Your task to perform on an android device: What's the weather going to be this weekend? Image 0: 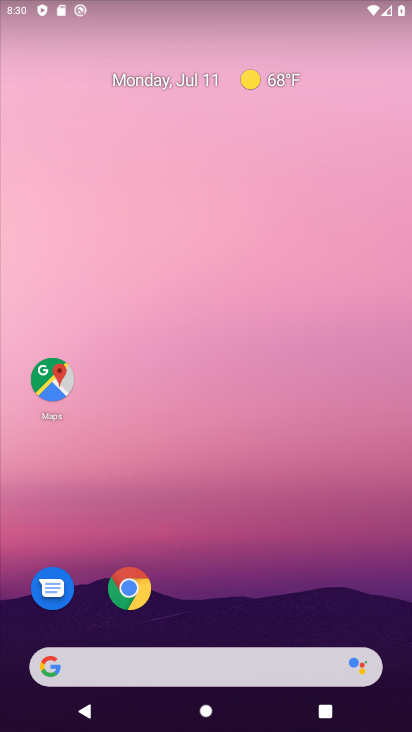
Step 0: click (249, 666)
Your task to perform on an android device: What's the weather going to be this weekend? Image 1: 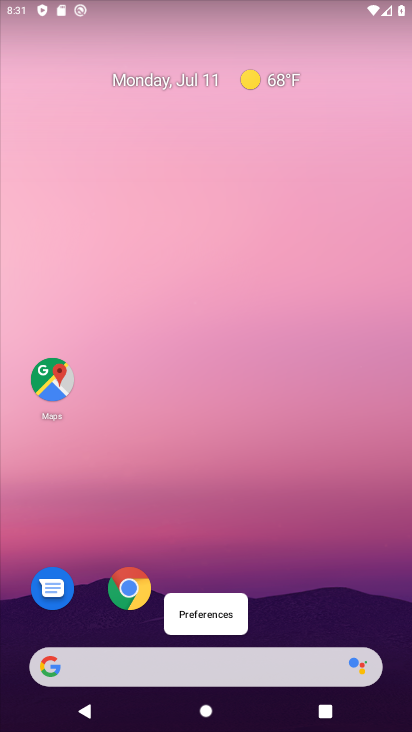
Step 1: click (210, 659)
Your task to perform on an android device: What's the weather going to be this weekend? Image 2: 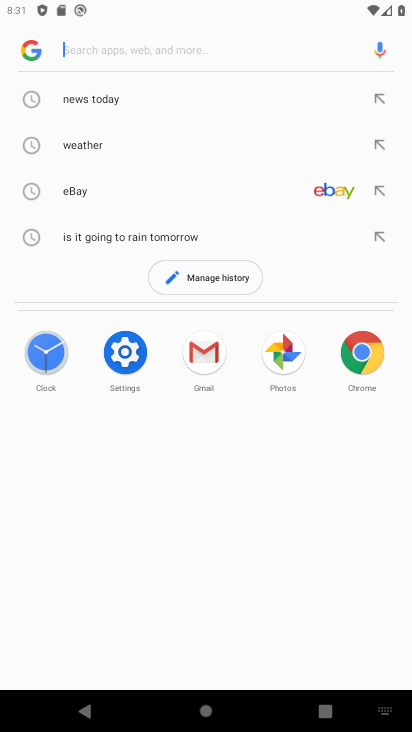
Step 2: click (85, 149)
Your task to perform on an android device: What's the weather going to be this weekend? Image 3: 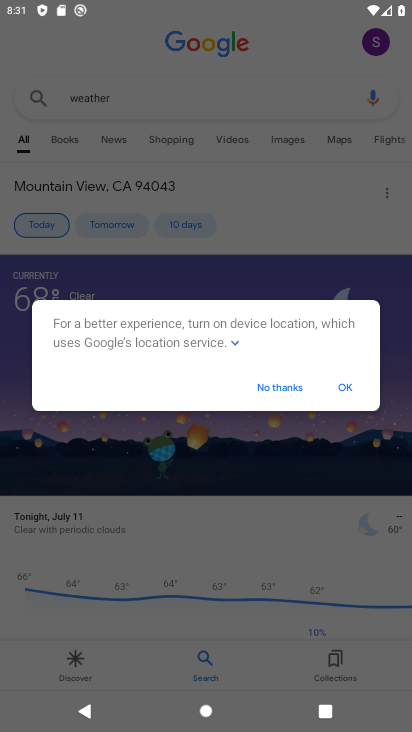
Step 3: click (190, 223)
Your task to perform on an android device: What's the weather going to be this weekend? Image 4: 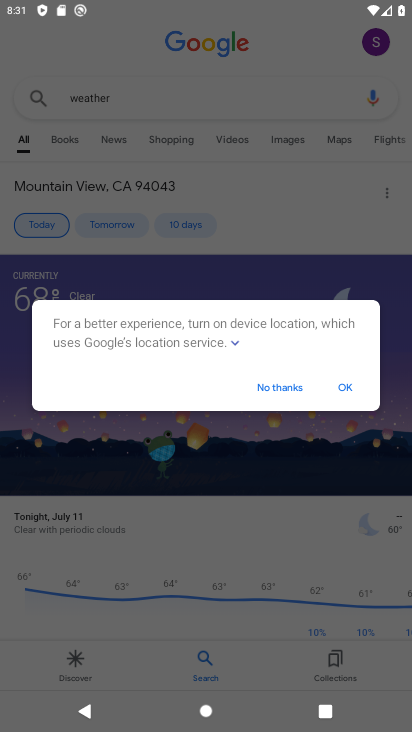
Step 4: click (341, 393)
Your task to perform on an android device: What's the weather going to be this weekend? Image 5: 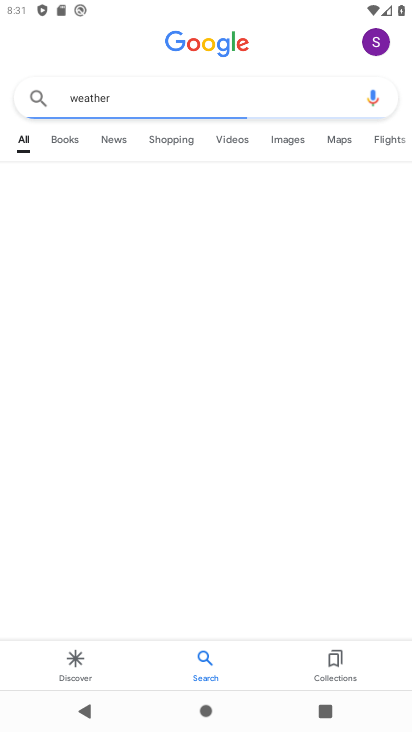
Step 5: click (169, 224)
Your task to perform on an android device: What's the weather going to be this weekend? Image 6: 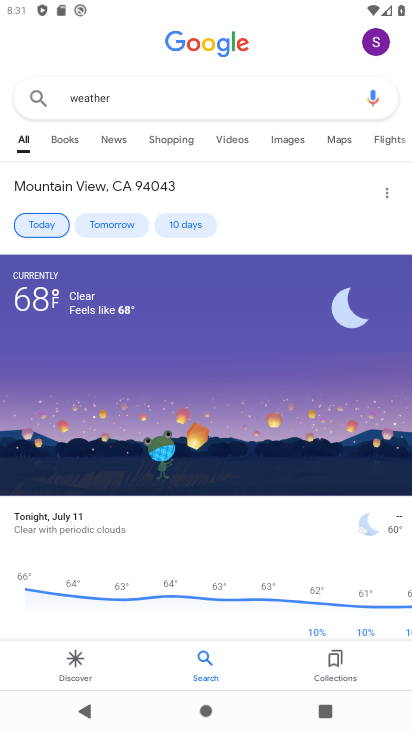
Step 6: click (178, 228)
Your task to perform on an android device: What's the weather going to be this weekend? Image 7: 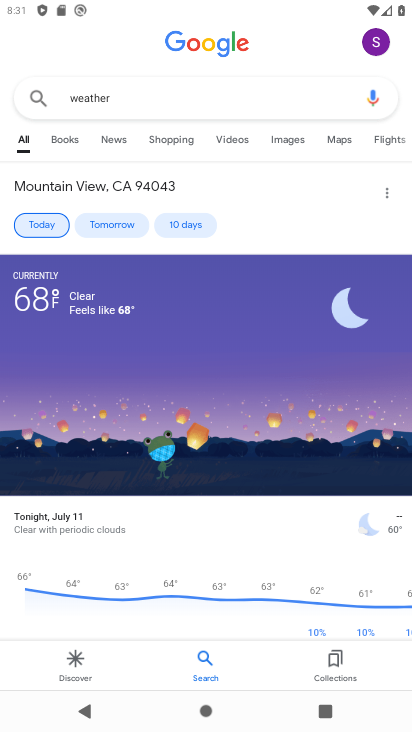
Step 7: click (178, 228)
Your task to perform on an android device: What's the weather going to be this weekend? Image 8: 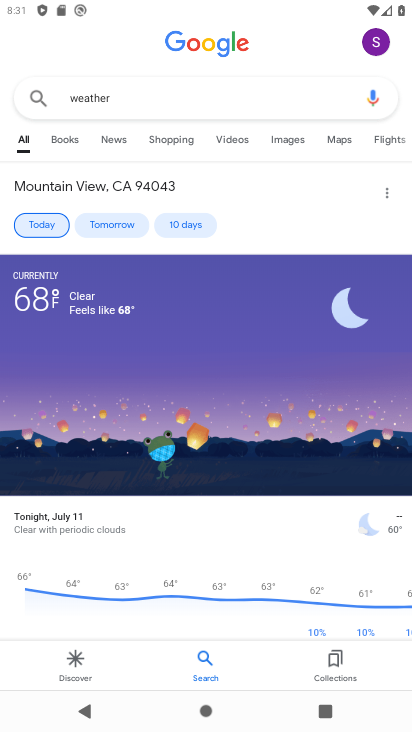
Step 8: click (179, 229)
Your task to perform on an android device: What's the weather going to be this weekend? Image 9: 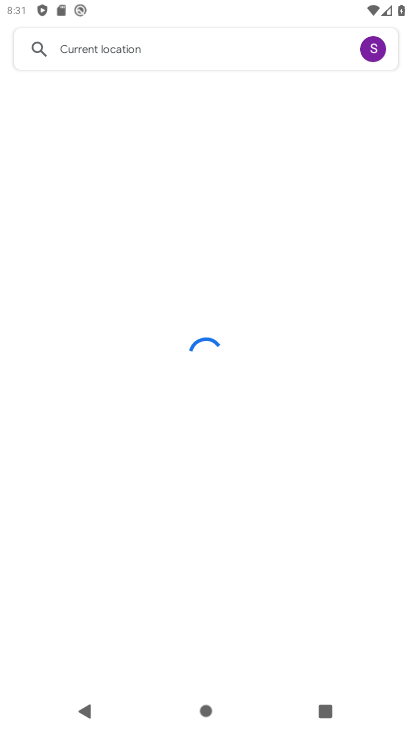
Step 9: task complete